Your task to perform on an android device: toggle pop-ups in chrome Image 0: 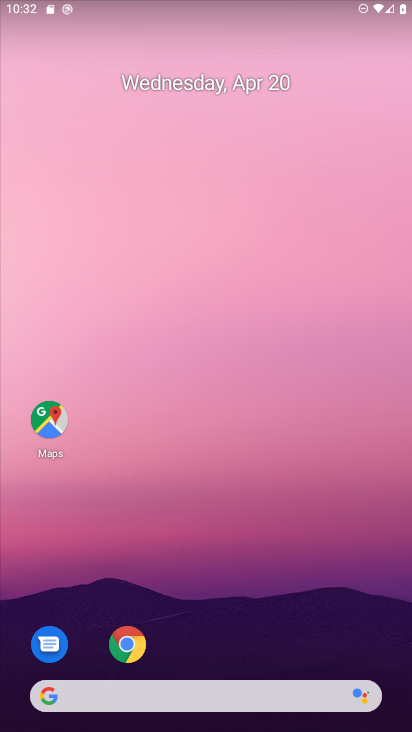
Step 0: drag from (317, 623) to (296, 62)
Your task to perform on an android device: toggle pop-ups in chrome Image 1: 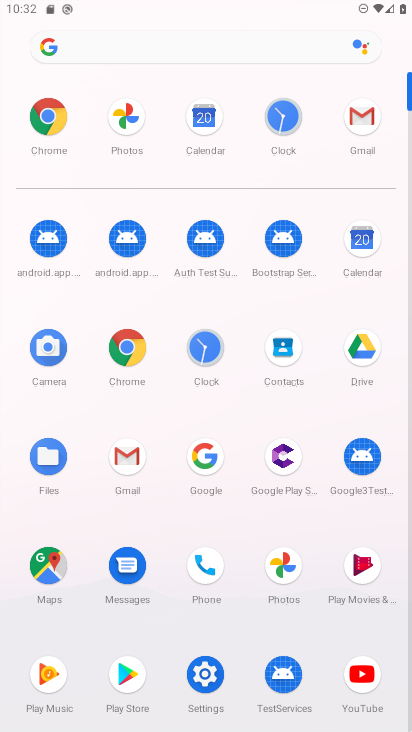
Step 1: click (116, 349)
Your task to perform on an android device: toggle pop-ups in chrome Image 2: 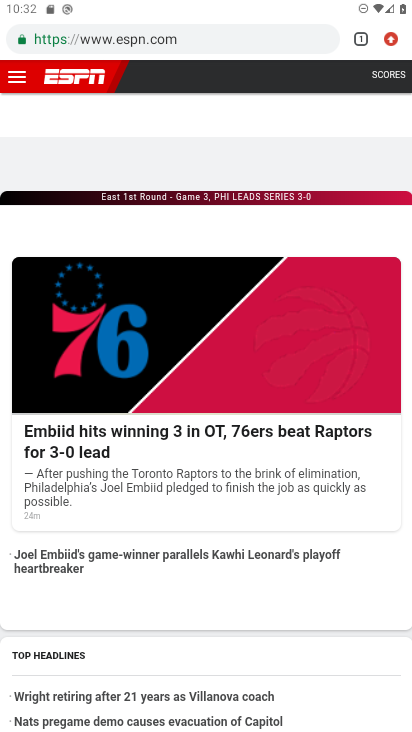
Step 2: press back button
Your task to perform on an android device: toggle pop-ups in chrome Image 3: 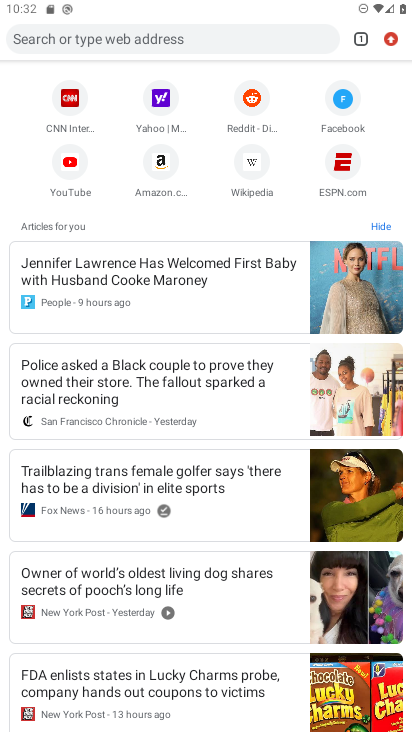
Step 3: click (394, 37)
Your task to perform on an android device: toggle pop-ups in chrome Image 4: 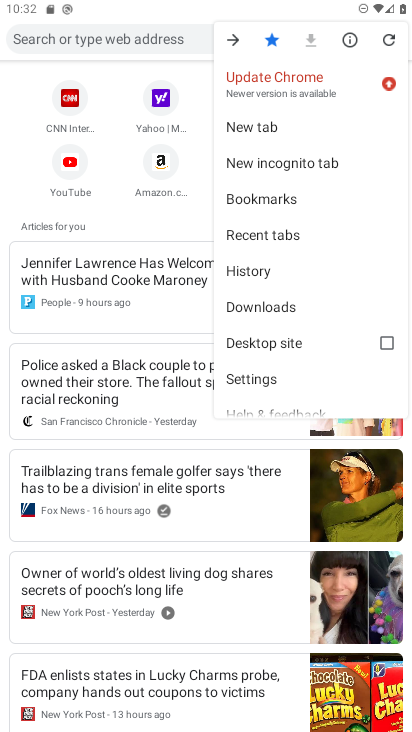
Step 4: click (264, 375)
Your task to perform on an android device: toggle pop-ups in chrome Image 5: 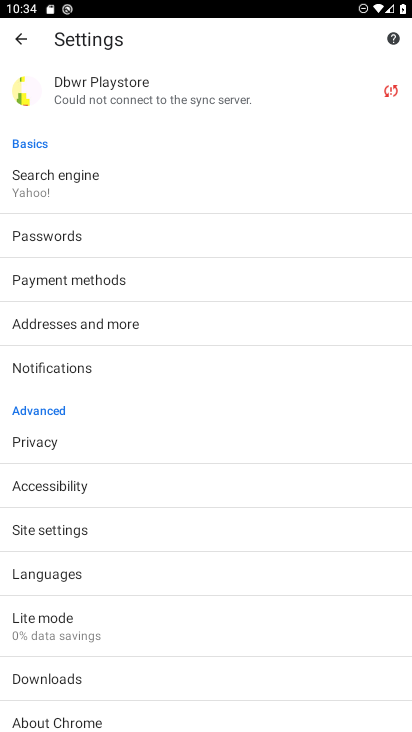
Step 5: click (116, 521)
Your task to perform on an android device: toggle pop-ups in chrome Image 6: 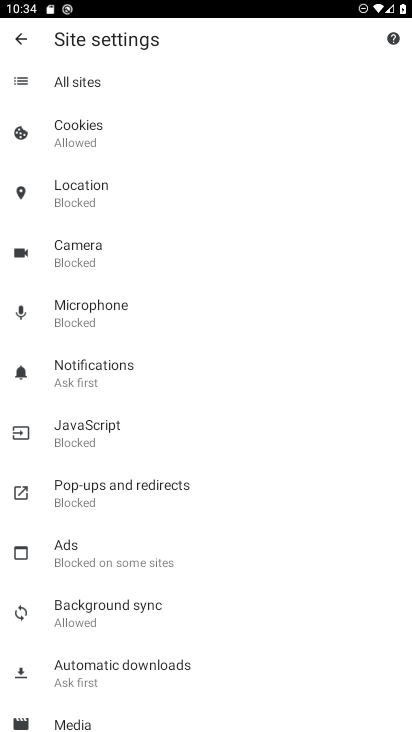
Step 6: click (104, 494)
Your task to perform on an android device: toggle pop-ups in chrome Image 7: 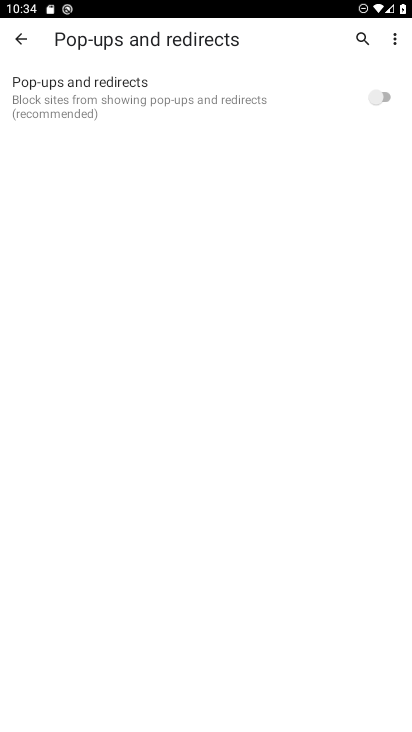
Step 7: click (360, 86)
Your task to perform on an android device: toggle pop-ups in chrome Image 8: 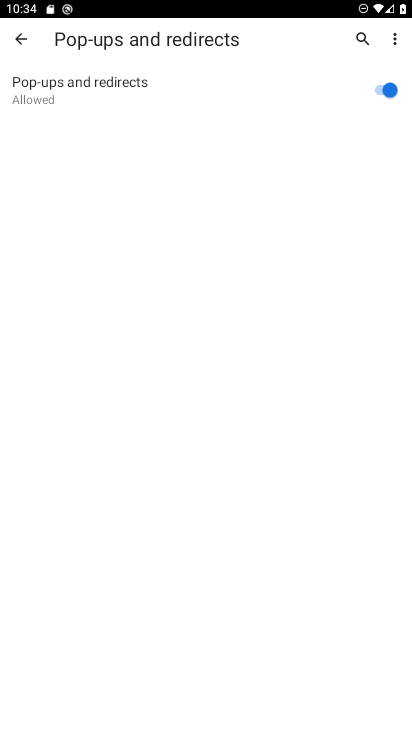
Step 8: task complete